Your task to perform on an android device: Open Google Chrome Image 0: 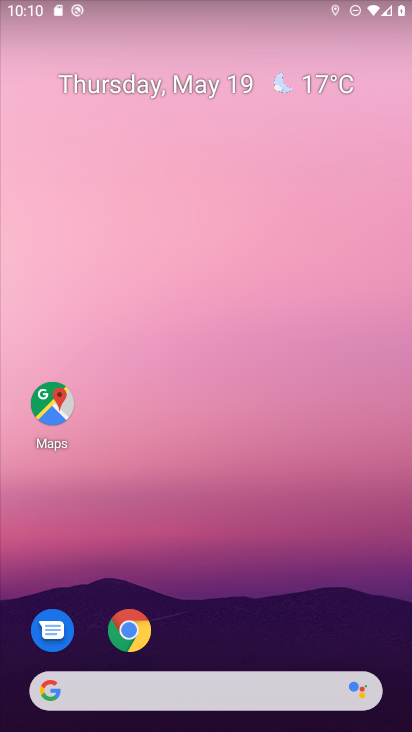
Step 0: click (127, 628)
Your task to perform on an android device: Open Google Chrome Image 1: 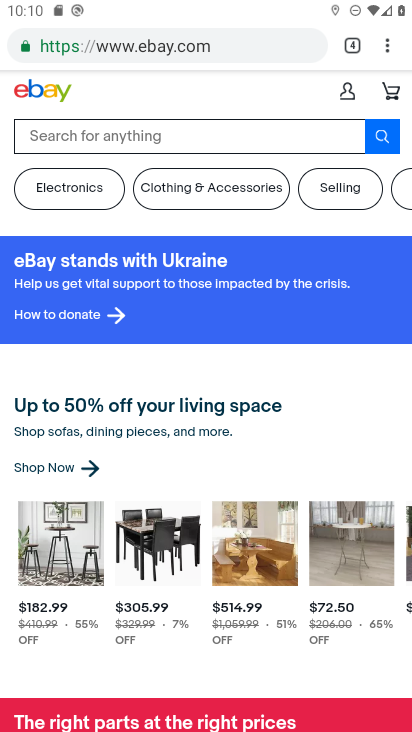
Step 1: task complete